Your task to perform on an android device: What's the weather? Image 0: 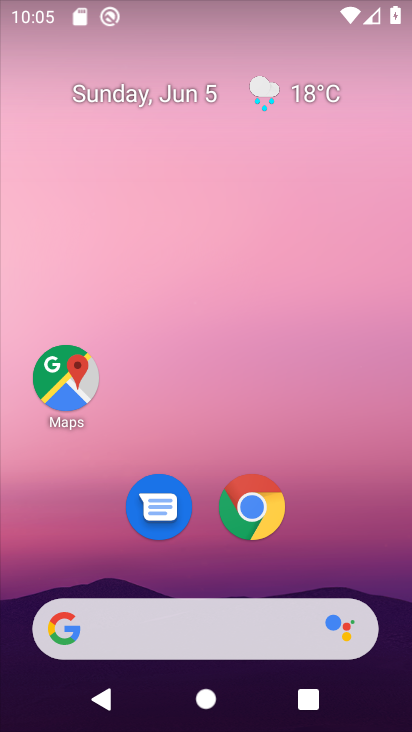
Step 0: click (272, 88)
Your task to perform on an android device: What's the weather? Image 1: 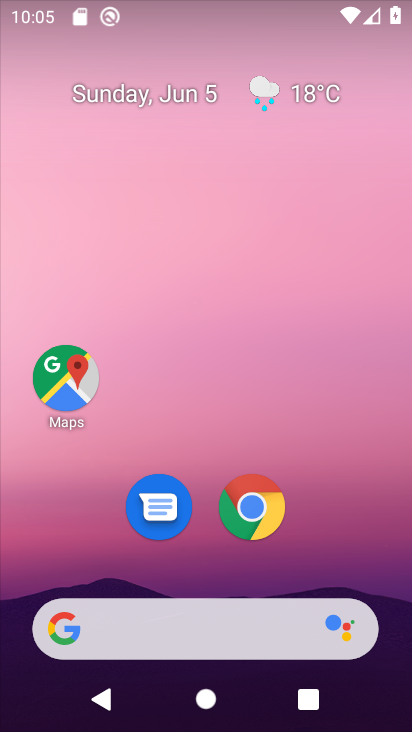
Step 1: click (308, 90)
Your task to perform on an android device: What's the weather? Image 2: 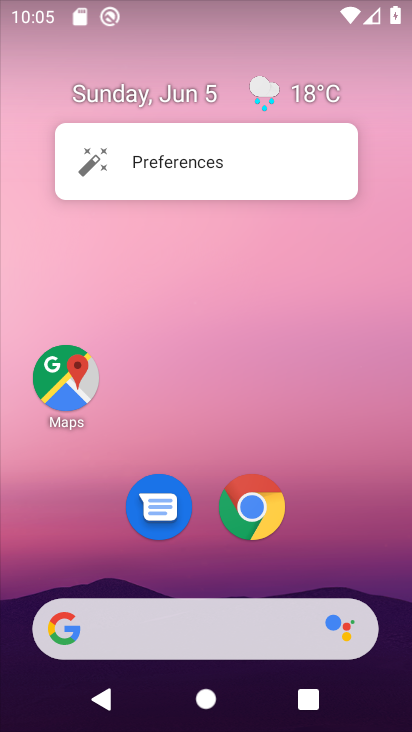
Step 2: click (306, 96)
Your task to perform on an android device: What's the weather? Image 3: 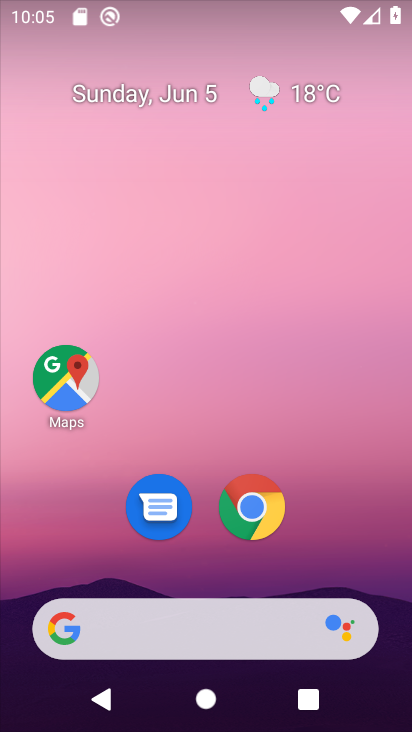
Step 3: click (305, 96)
Your task to perform on an android device: What's the weather? Image 4: 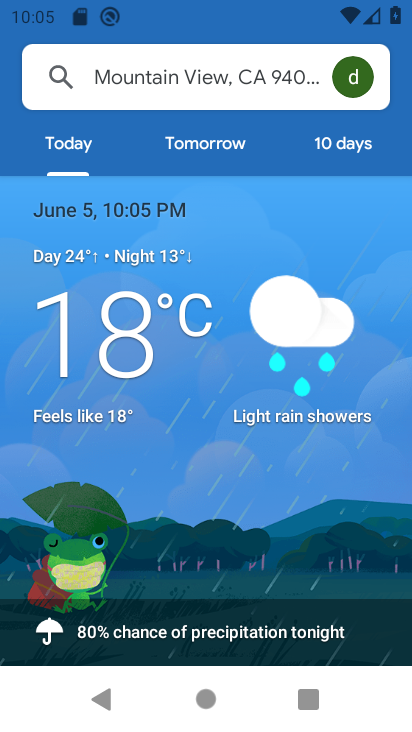
Step 4: task complete